Your task to perform on an android device: Empty the shopping cart on walmart.com. Add "acer predator" to the cart on walmart.com Image 0: 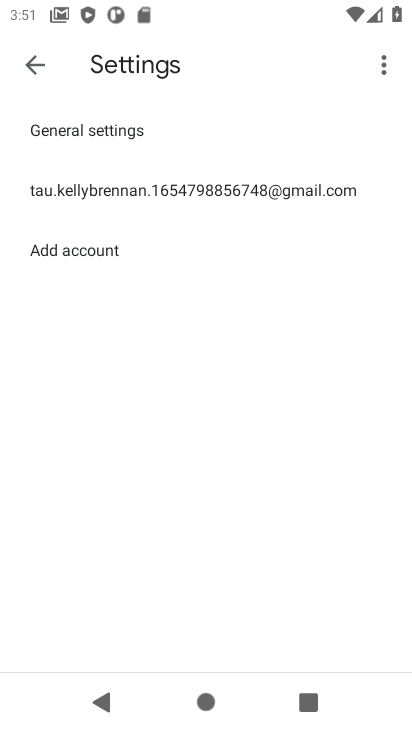
Step 0: press home button
Your task to perform on an android device: Empty the shopping cart on walmart.com. Add "acer predator" to the cart on walmart.com Image 1: 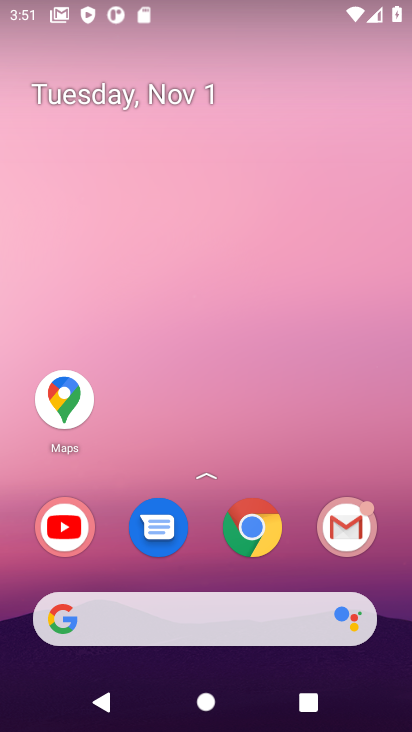
Step 1: click (220, 623)
Your task to perform on an android device: Empty the shopping cart on walmart.com. Add "acer predator" to the cart on walmart.com Image 2: 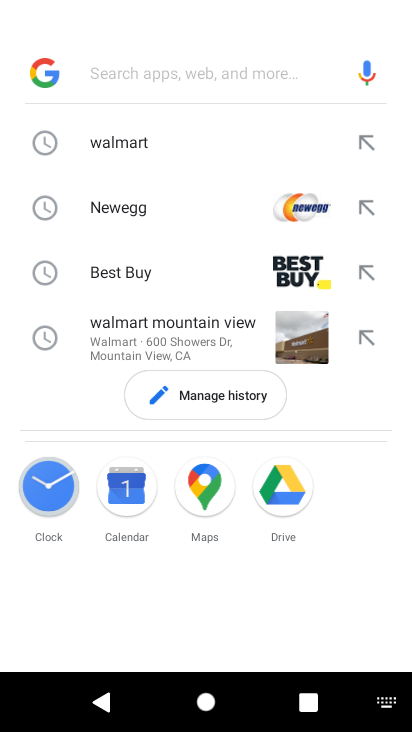
Step 2: type "walmart.com"
Your task to perform on an android device: Empty the shopping cart on walmart.com. Add "acer predator" to the cart on walmart.com Image 3: 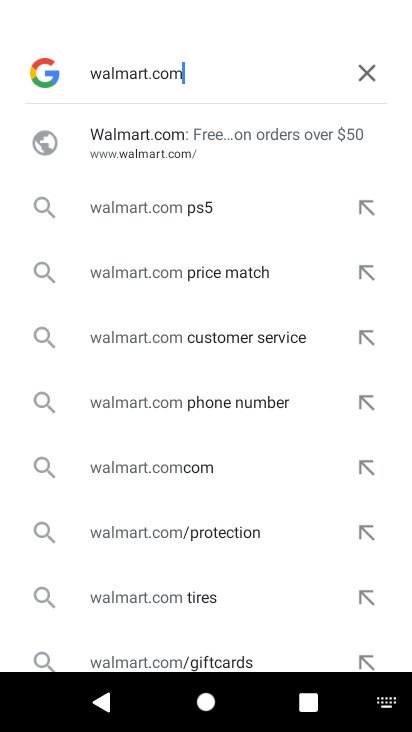
Step 3: click (138, 154)
Your task to perform on an android device: Empty the shopping cart on walmart.com. Add "acer predator" to the cart on walmart.com Image 4: 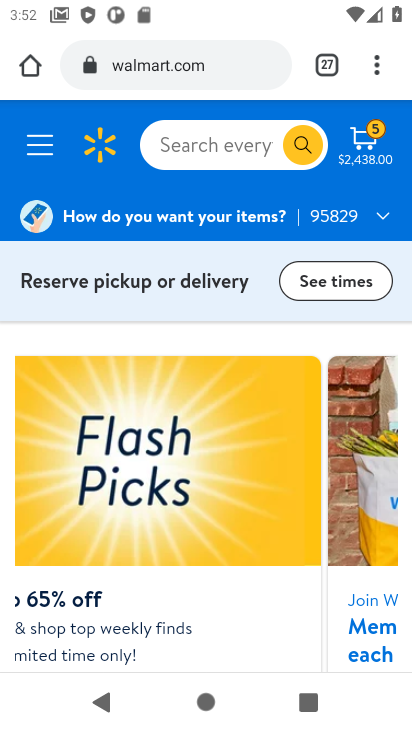
Step 4: click (204, 149)
Your task to perform on an android device: Empty the shopping cart on walmart.com. Add "acer predator" to the cart on walmart.com Image 5: 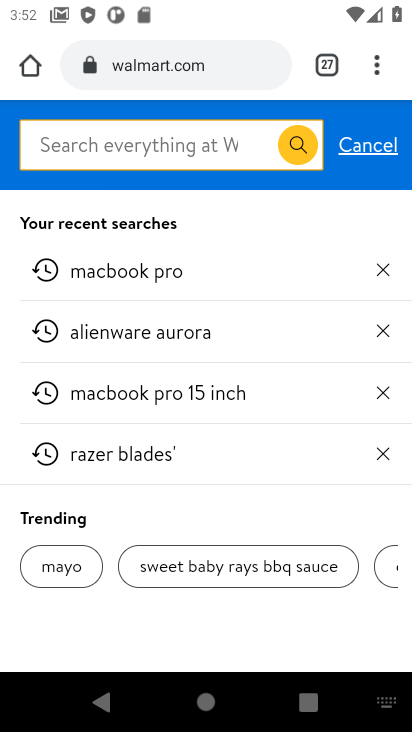
Step 5: type "acer predator""
Your task to perform on an android device: Empty the shopping cart on walmart.com. Add "acer predator" to the cart on walmart.com Image 6: 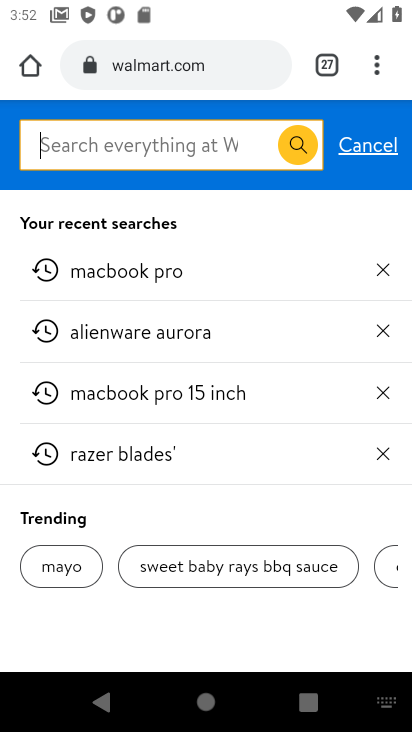
Step 6: click (163, 160)
Your task to perform on an android device: Empty the shopping cart on walmart.com. Add "acer predator" to the cart on walmart.com Image 7: 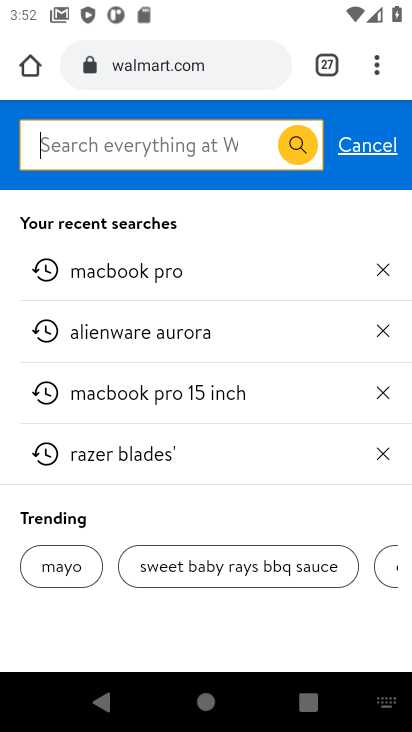
Step 7: type "acer predator"
Your task to perform on an android device: Empty the shopping cart on walmart.com. Add "acer predator" to the cart on walmart.com Image 8: 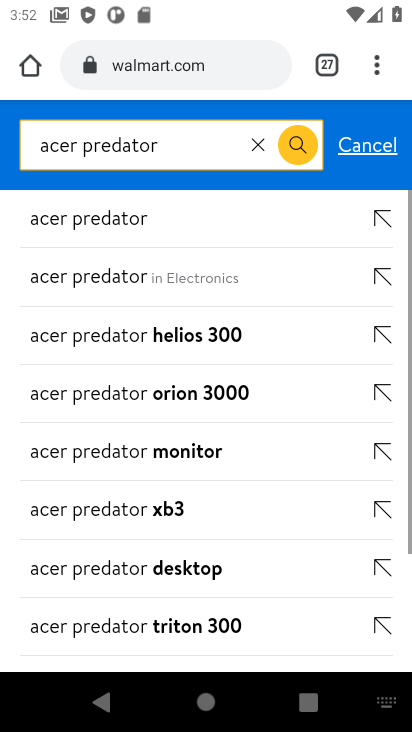
Step 8: click (101, 221)
Your task to perform on an android device: Empty the shopping cart on walmart.com. Add "acer predator" to the cart on walmart.com Image 9: 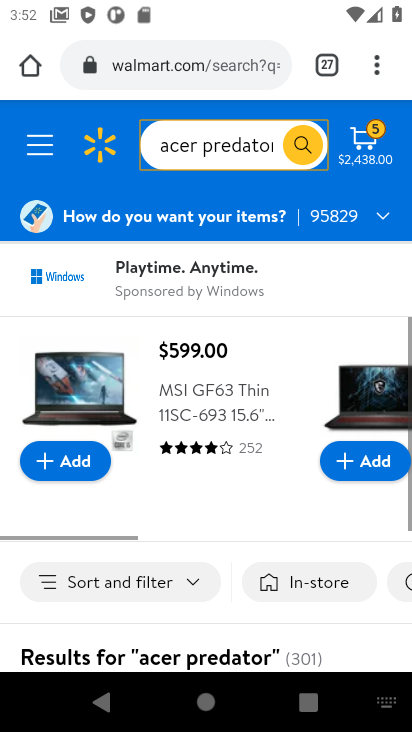
Step 9: click (47, 452)
Your task to perform on an android device: Empty the shopping cart on walmart.com. Add "acer predator" to the cart on walmart.com Image 10: 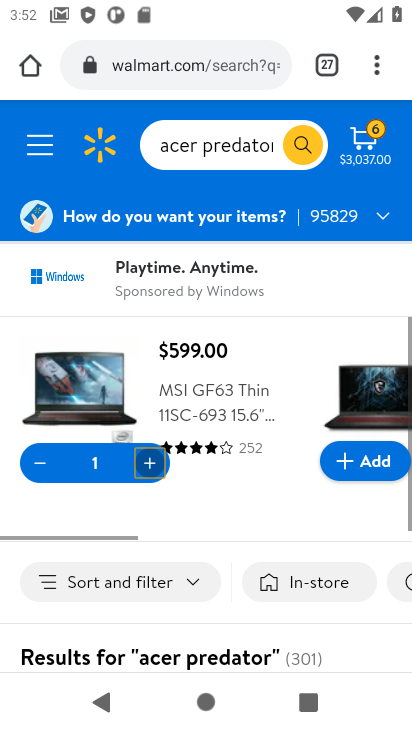
Step 10: task complete